Your task to perform on an android device: Open Google Chrome Image 0: 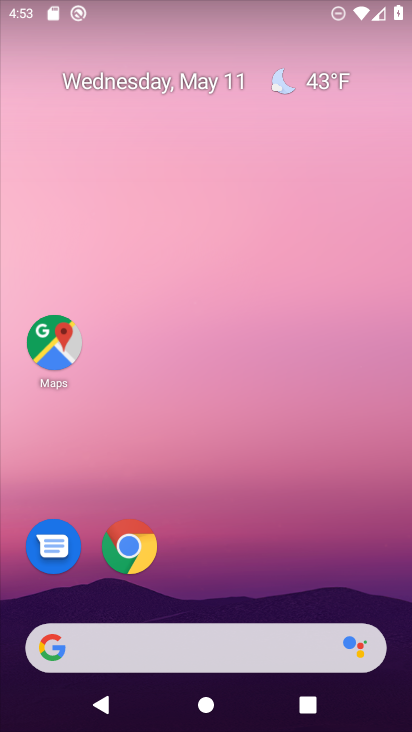
Step 0: click (126, 538)
Your task to perform on an android device: Open Google Chrome Image 1: 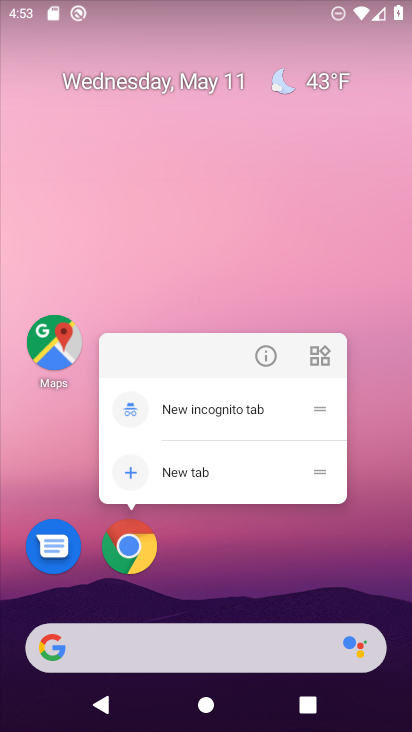
Step 1: click (127, 540)
Your task to perform on an android device: Open Google Chrome Image 2: 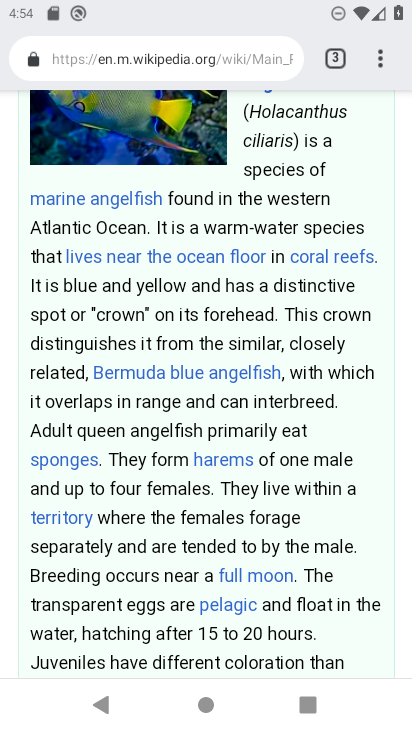
Step 2: task complete